Your task to perform on an android device: Go to notification settings Image 0: 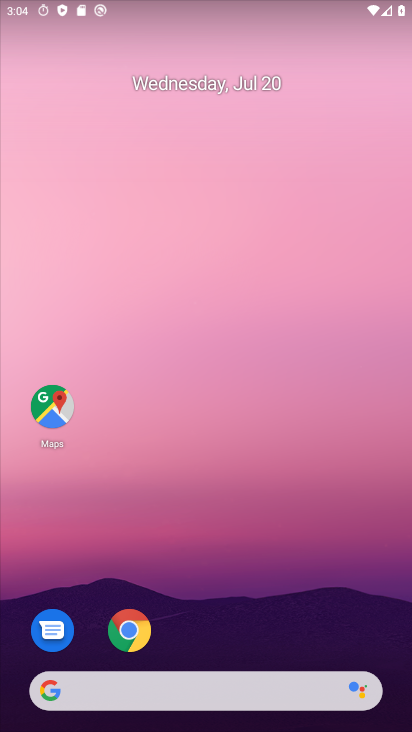
Step 0: drag from (249, 654) to (258, 31)
Your task to perform on an android device: Go to notification settings Image 1: 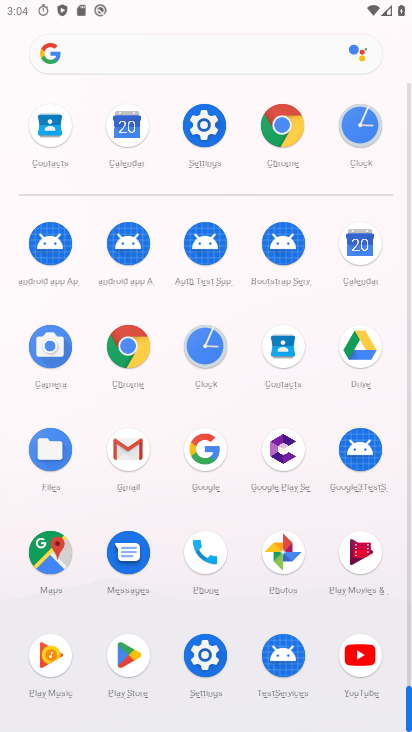
Step 1: click (194, 115)
Your task to perform on an android device: Go to notification settings Image 2: 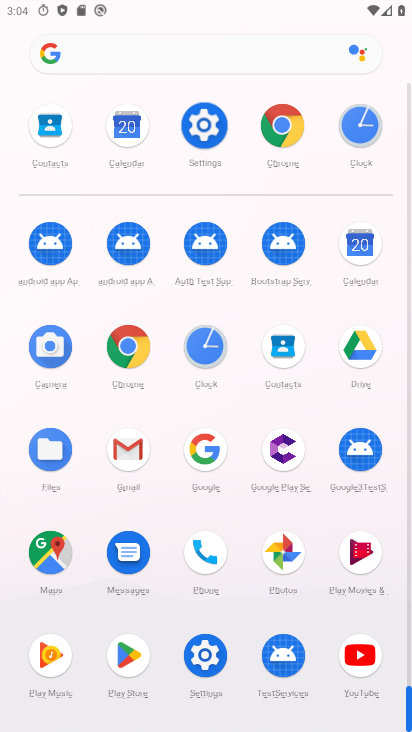
Step 2: click (210, 134)
Your task to perform on an android device: Go to notification settings Image 3: 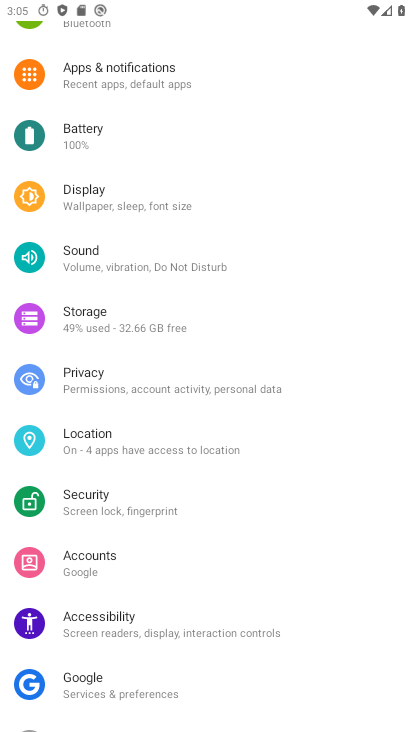
Step 3: drag from (171, 425) to (180, 142)
Your task to perform on an android device: Go to notification settings Image 4: 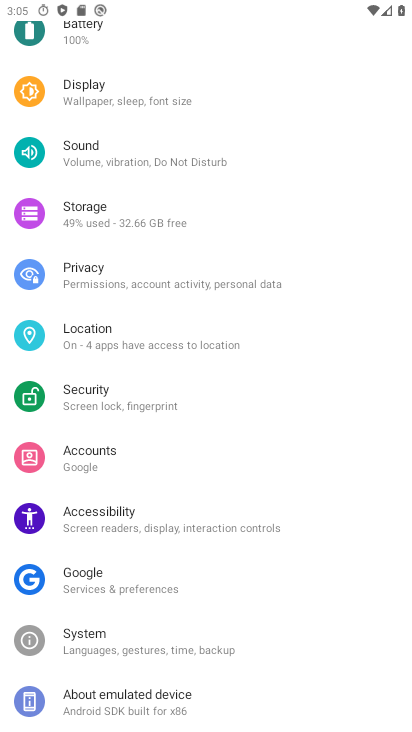
Step 4: drag from (189, 572) to (189, 266)
Your task to perform on an android device: Go to notification settings Image 5: 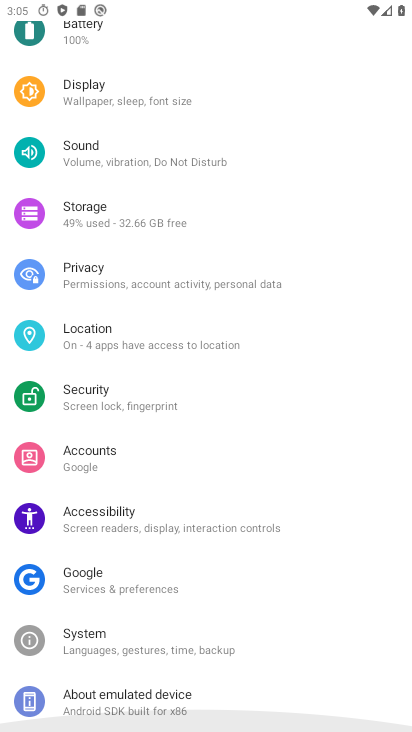
Step 5: drag from (188, 396) to (169, 186)
Your task to perform on an android device: Go to notification settings Image 6: 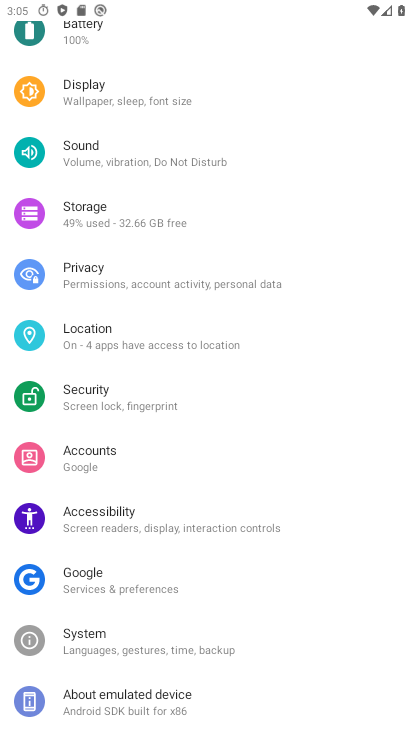
Step 6: drag from (124, 185) to (87, 505)
Your task to perform on an android device: Go to notification settings Image 7: 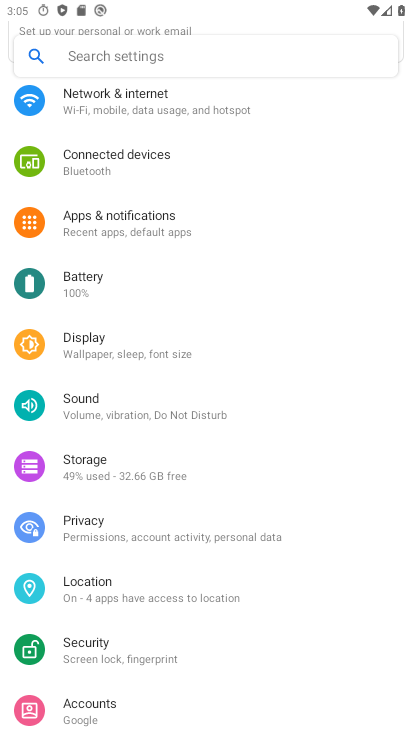
Step 7: drag from (100, 321) to (101, 471)
Your task to perform on an android device: Go to notification settings Image 8: 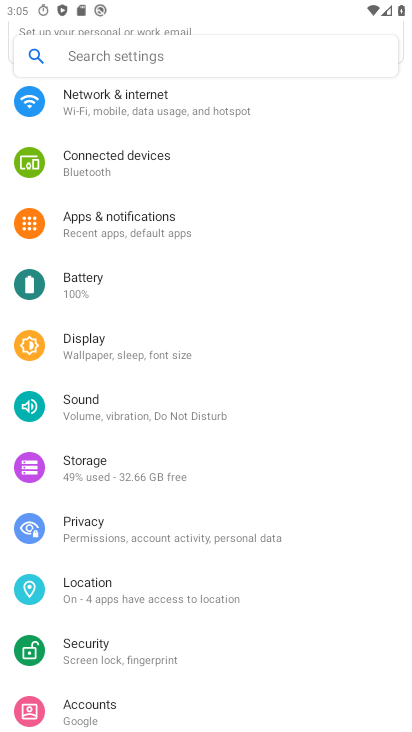
Step 8: click (128, 214)
Your task to perform on an android device: Go to notification settings Image 9: 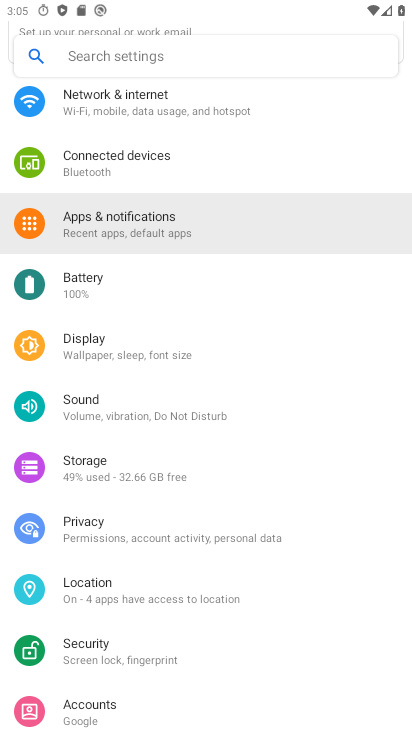
Step 9: click (128, 214)
Your task to perform on an android device: Go to notification settings Image 10: 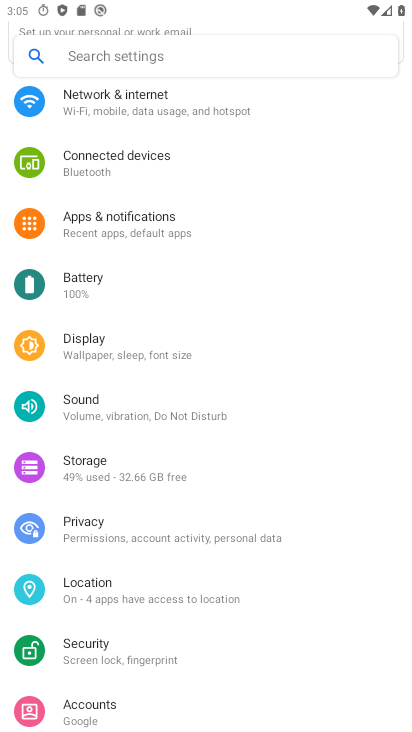
Step 10: click (128, 214)
Your task to perform on an android device: Go to notification settings Image 11: 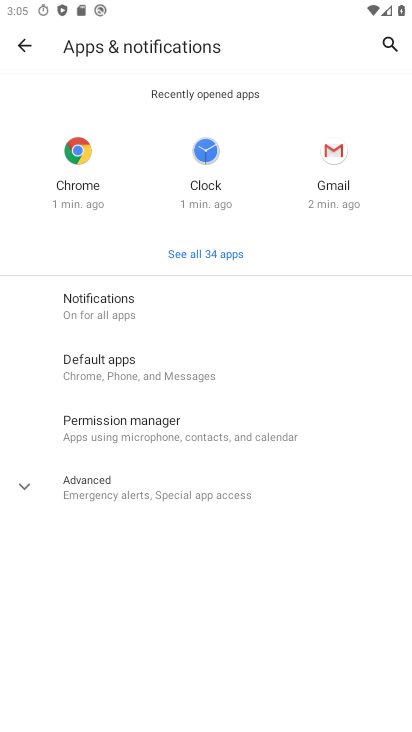
Step 11: click (93, 300)
Your task to perform on an android device: Go to notification settings Image 12: 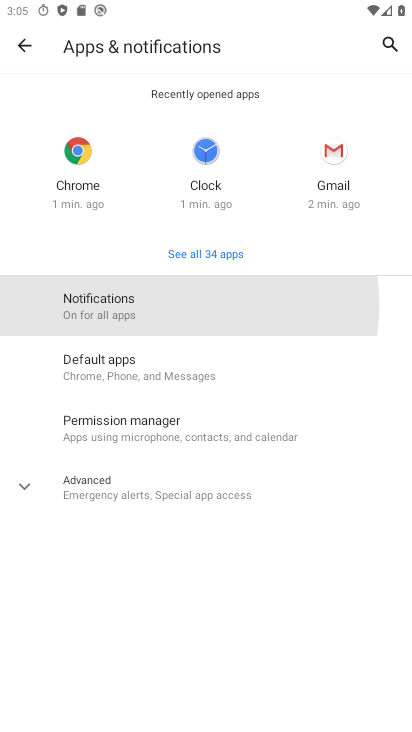
Step 12: click (93, 299)
Your task to perform on an android device: Go to notification settings Image 13: 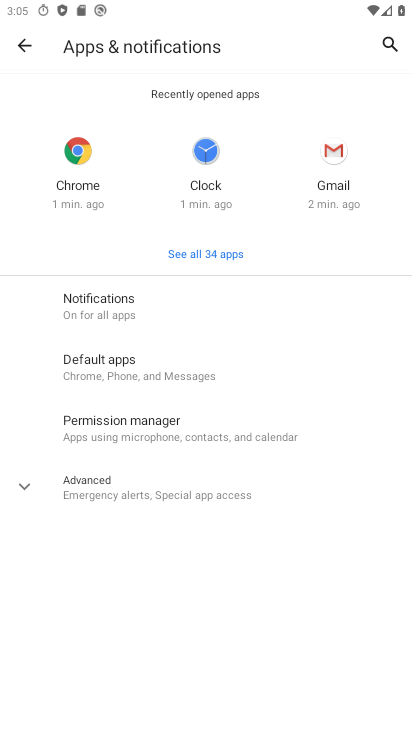
Step 13: click (94, 298)
Your task to perform on an android device: Go to notification settings Image 14: 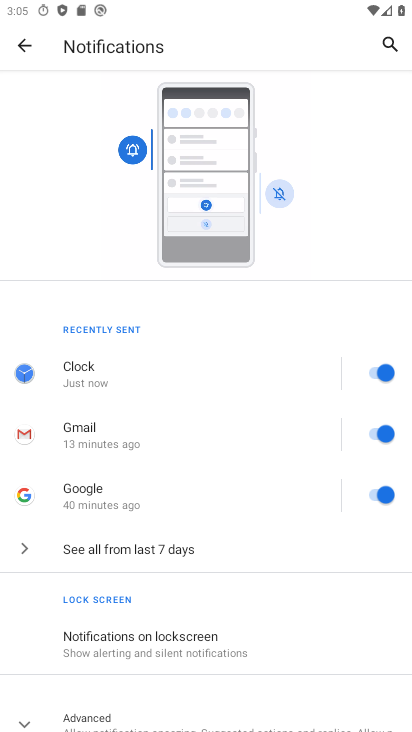
Step 14: drag from (201, 443) to (200, 161)
Your task to perform on an android device: Go to notification settings Image 15: 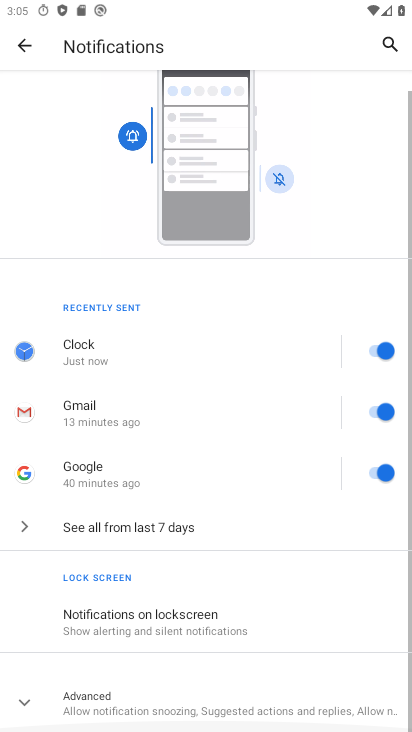
Step 15: drag from (248, 402) to (245, 258)
Your task to perform on an android device: Go to notification settings Image 16: 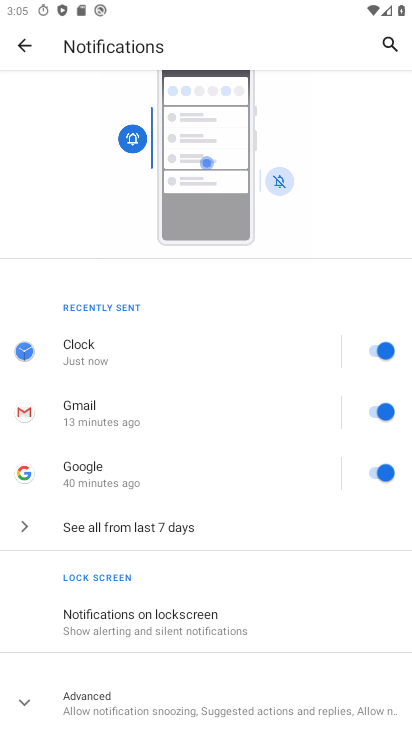
Step 16: drag from (195, 571) to (193, 406)
Your task to perform on an android device: Go to notification settings Image 17: 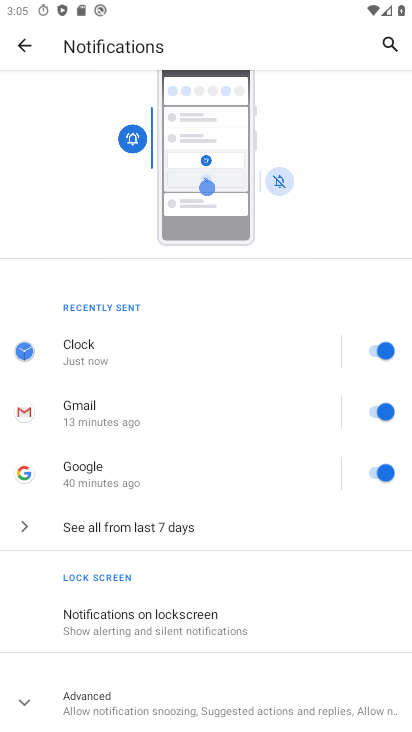
Step 17: drag from (161, 597) to (160, 377)
Your task to perform on an android device: Go to notification settings Image 18: 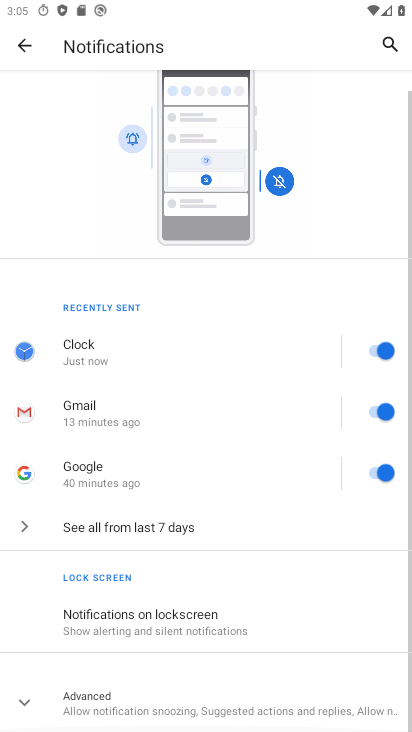
Step 18: drag from (196, 582) to (214, 290)
Your task to perform on an android device: Go to notification settings Image 19: 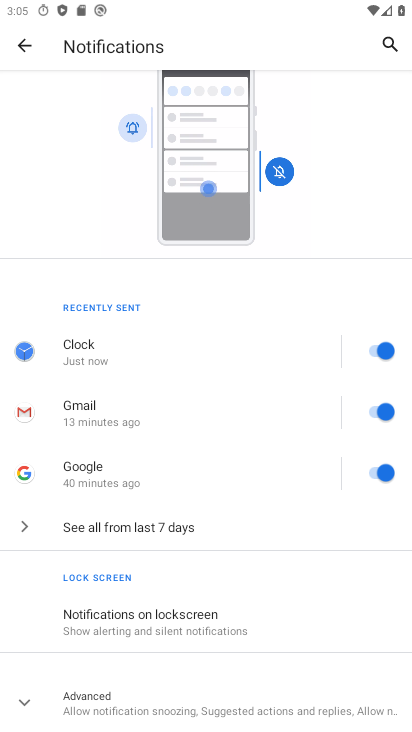
Step 19: click (127, 705)
Your task to perform on an android device: Go to notification settings Image 20: 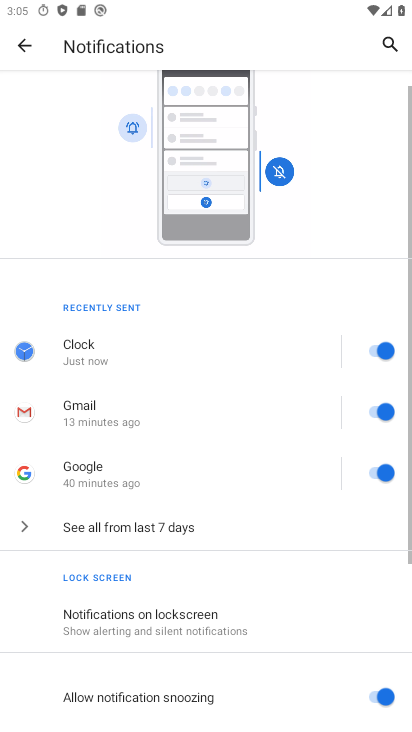
Step 20: task complete